Your task to perform on an android device: turn smart compose on in the gmail app Image 0: 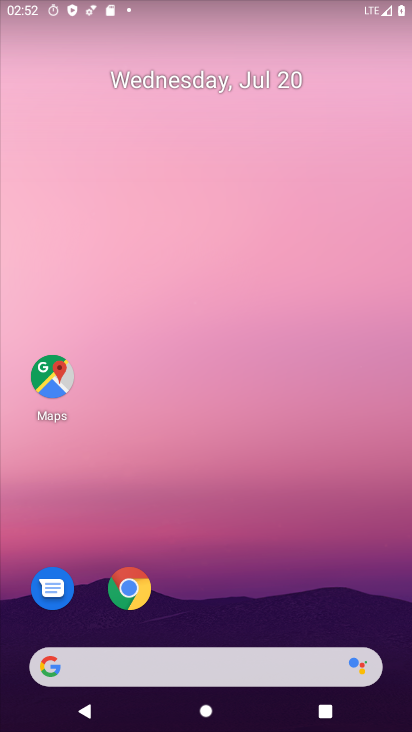
Step 0: drag from (220, 608) to (215, 91)
Your task to perform on an android device: turn smart compose on in the gmail app Image 1: 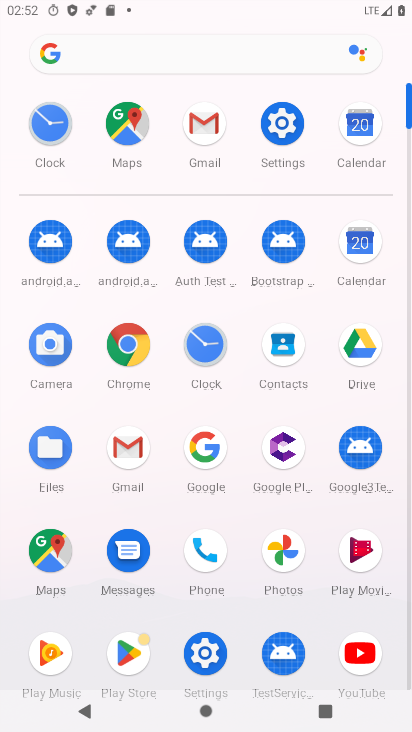
Step 1: click (135, 445)
Your task to perform on an android device: turn smart compose on in the gmail app Image 2: 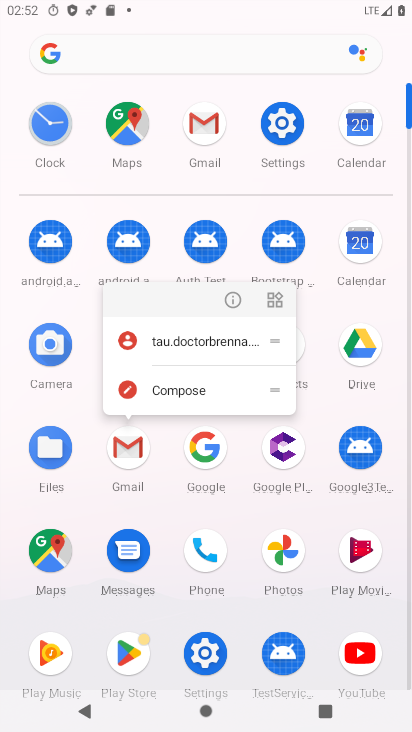
Step 2: click (223, 299)
Your task to perform on an android device: turn smart compose on in the gmail app Image 3: 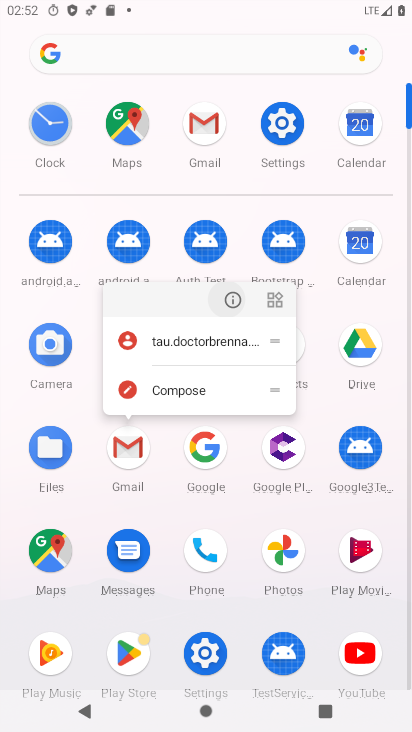
Step 3: click (223, 299)
Your task to perform on an android device: turn smart compose on in the gmail app Image 4: 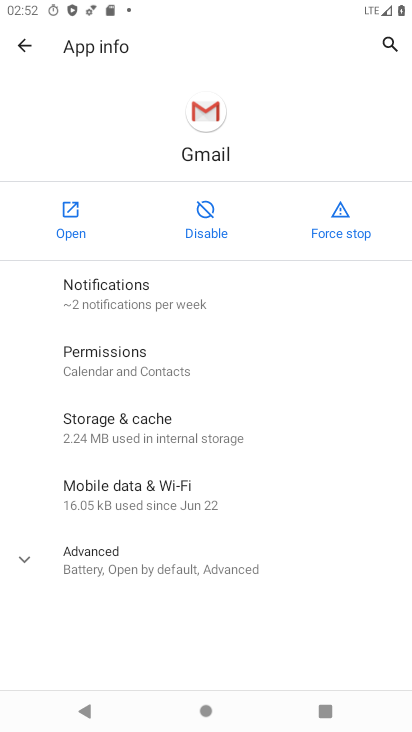
Step 4: click (75, 208)
Your task to perform on an android device: turn smart compose on in the gmail app Image 5: 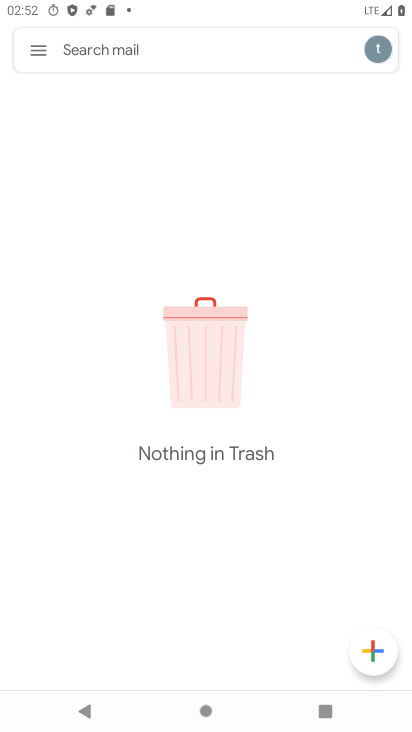
Step 5: drag from (228, 485) to (268, 380)
Your task to perform on an android device: turn smart compose on in the gmail app Image 6: 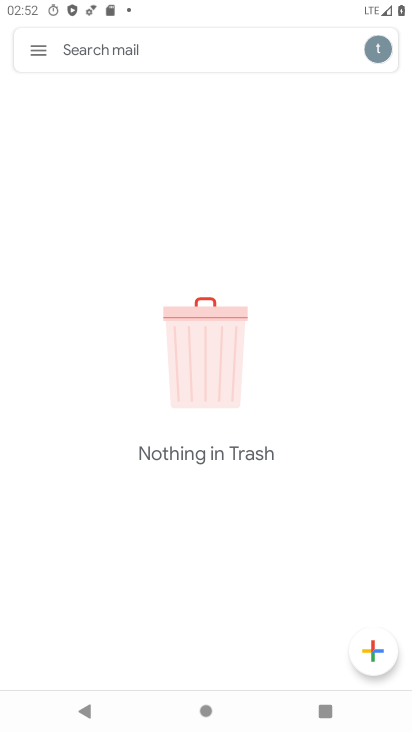
Step 6: click (39, 44)
Your task to perform on an android device: turn smart compose on in the gmail app Image 7: 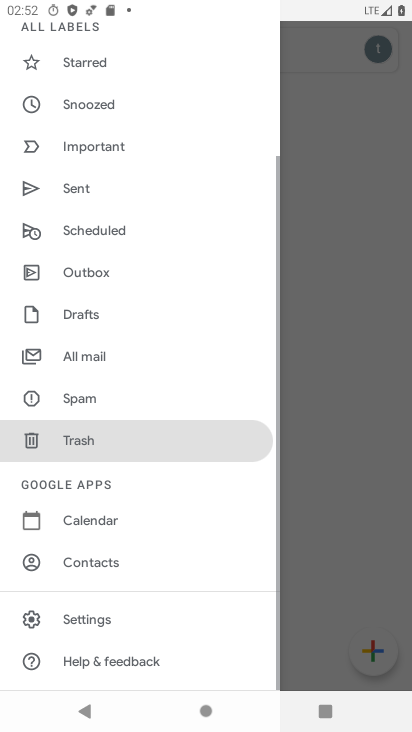
Step 7: click (120, 617)
Your task to perform on an android device: turn smart compose on in the gmail app Image 8: 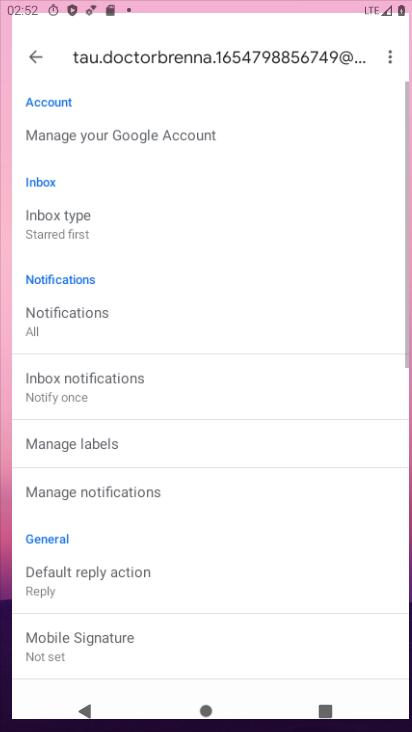
Step 8: task complete